Your task to perform on an android device: Open Google Chrome and open the bookmarks view Image 0: 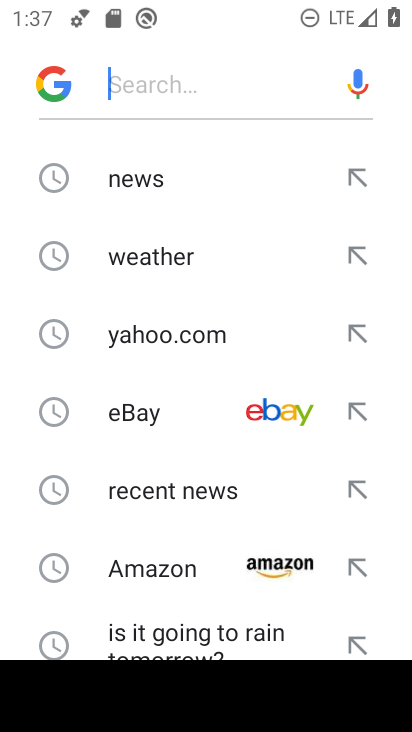
Step 0: press home button
Your task to perform on an android device: Open Google Chrome and open the bookmarks view Image 1: 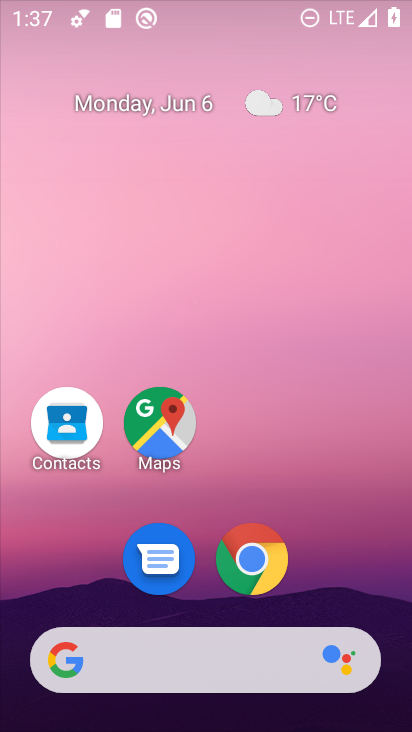
Step 1: drag from (204, 664) to (261, 87)
Your task to perform on an android device: Open Google Chrome and open the bookmarks view Image 2: 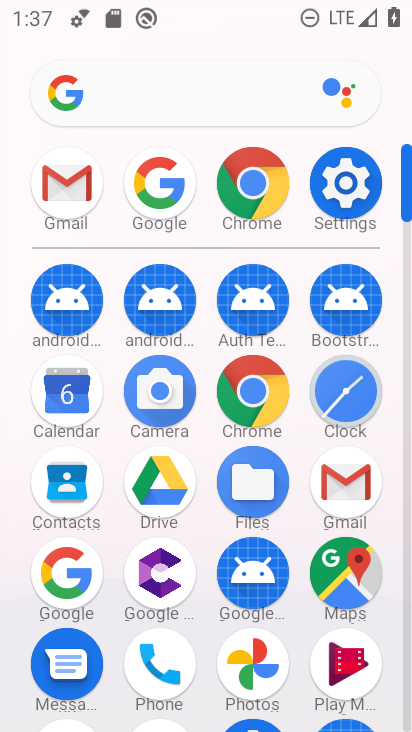
Step 2: click (262, 191)
Your task to perform on an android device: Open Google Chrome and open the bookmarks view Image 3: 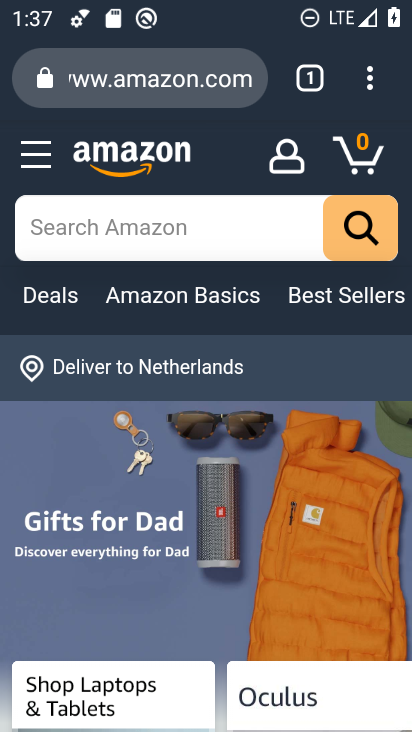
Step 3: click (372, 75)
Your task to perform on an android device: Open Google Chrome and open the bookmarks view Image 4: 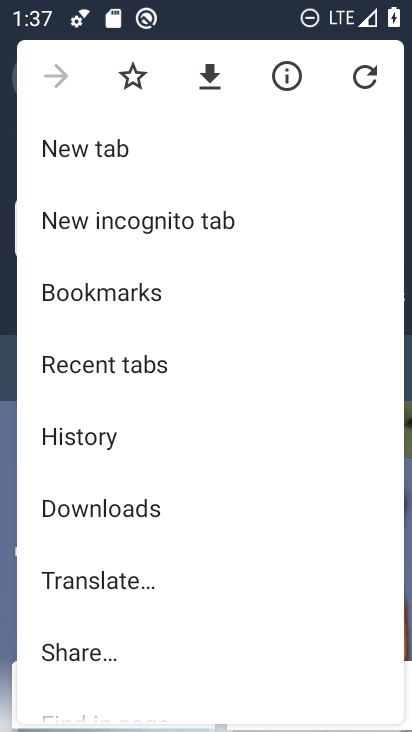
Step 4: click (181, 278)
Your task to perform on an android device: Open Google Chrome and open the bookmarks view Image 5: 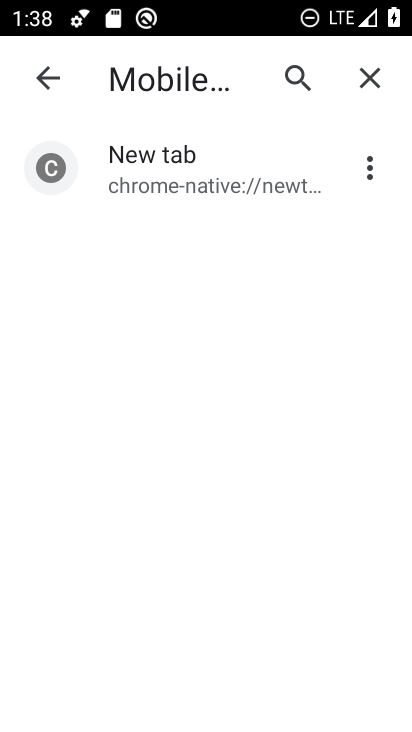
Step 5: task complete